Your task to perform on an android device: turn off improve location accuracy Image 0: 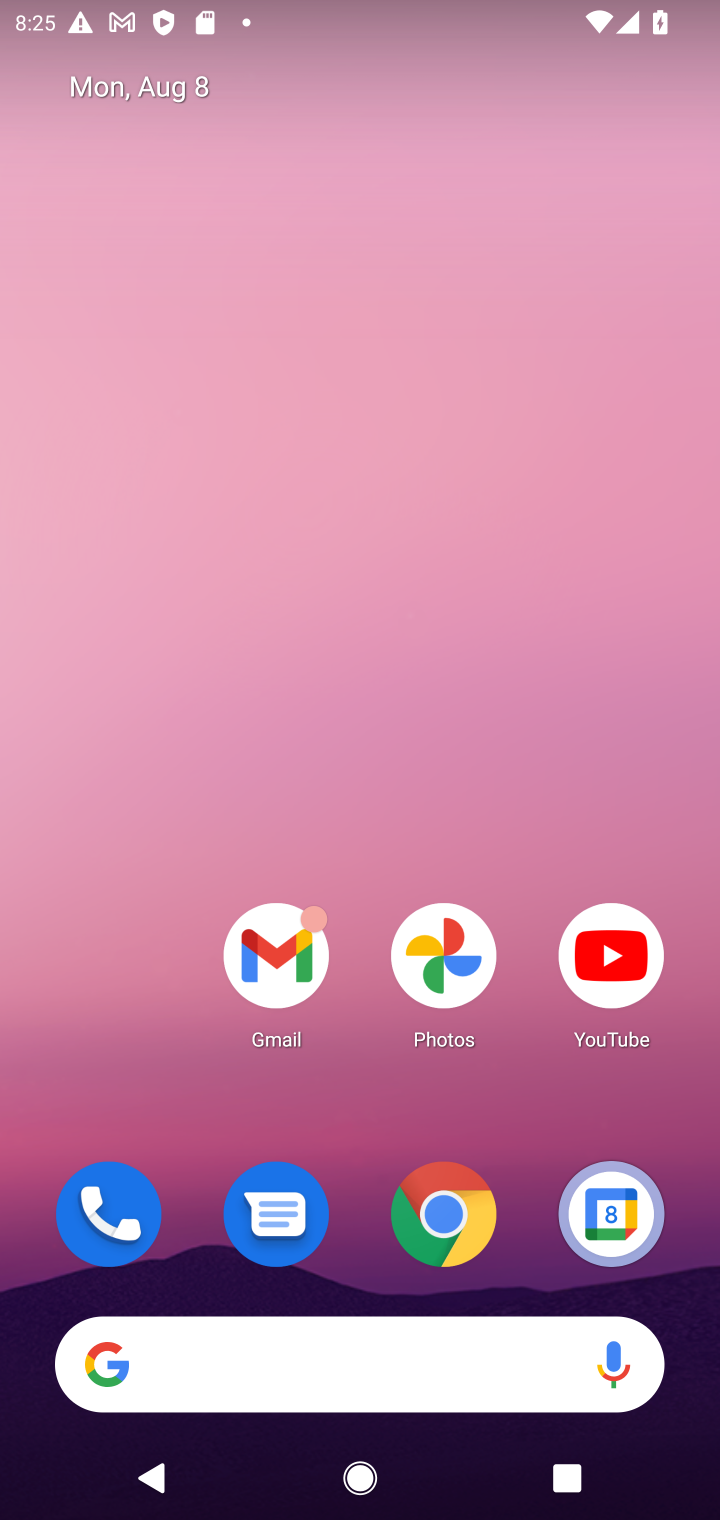
Step 0: drag from (311, 1096) to (205, 363)
Your task to perform on an android device: turn off improve location accuracy Image 1: 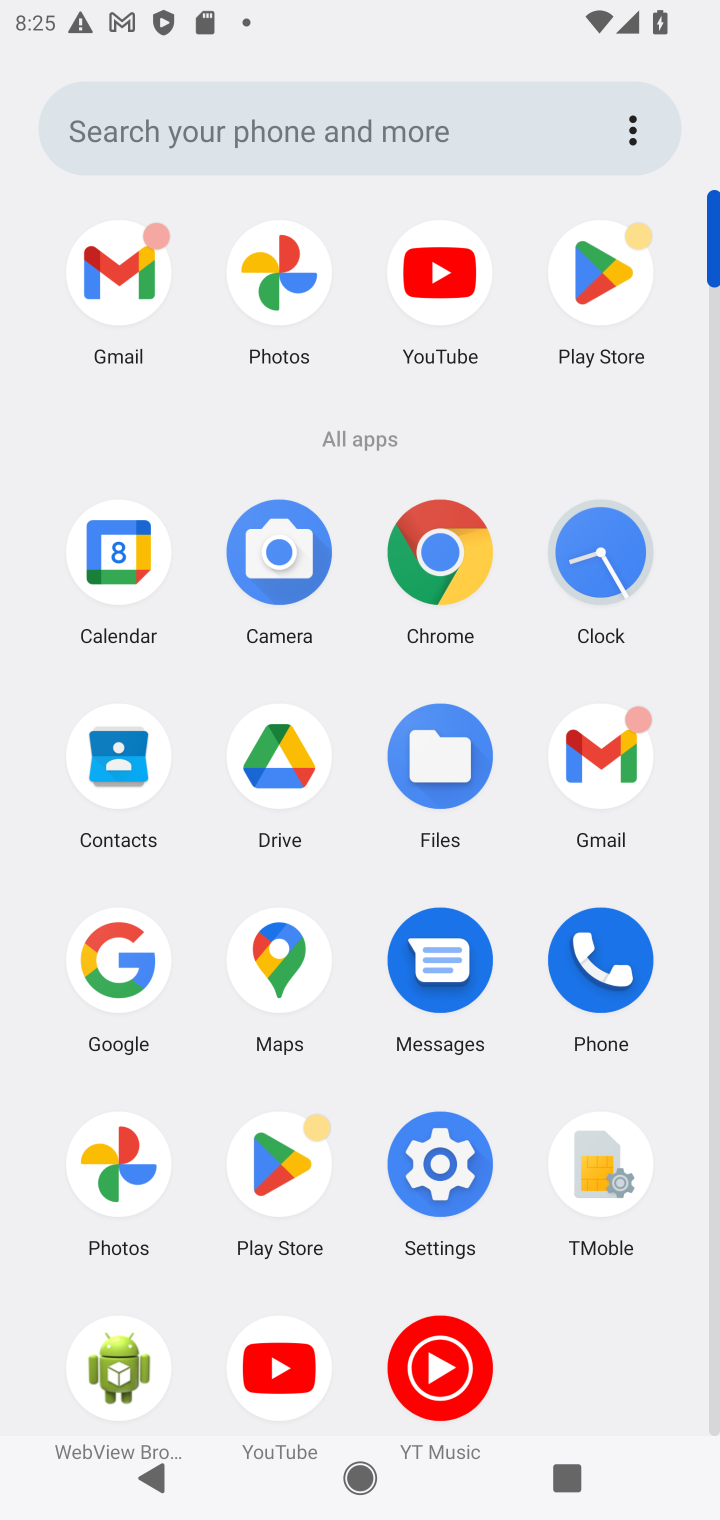
Step 1: click (431, 1194)
Your task to perform on an android device: turn off improve location accuracy Image 2: 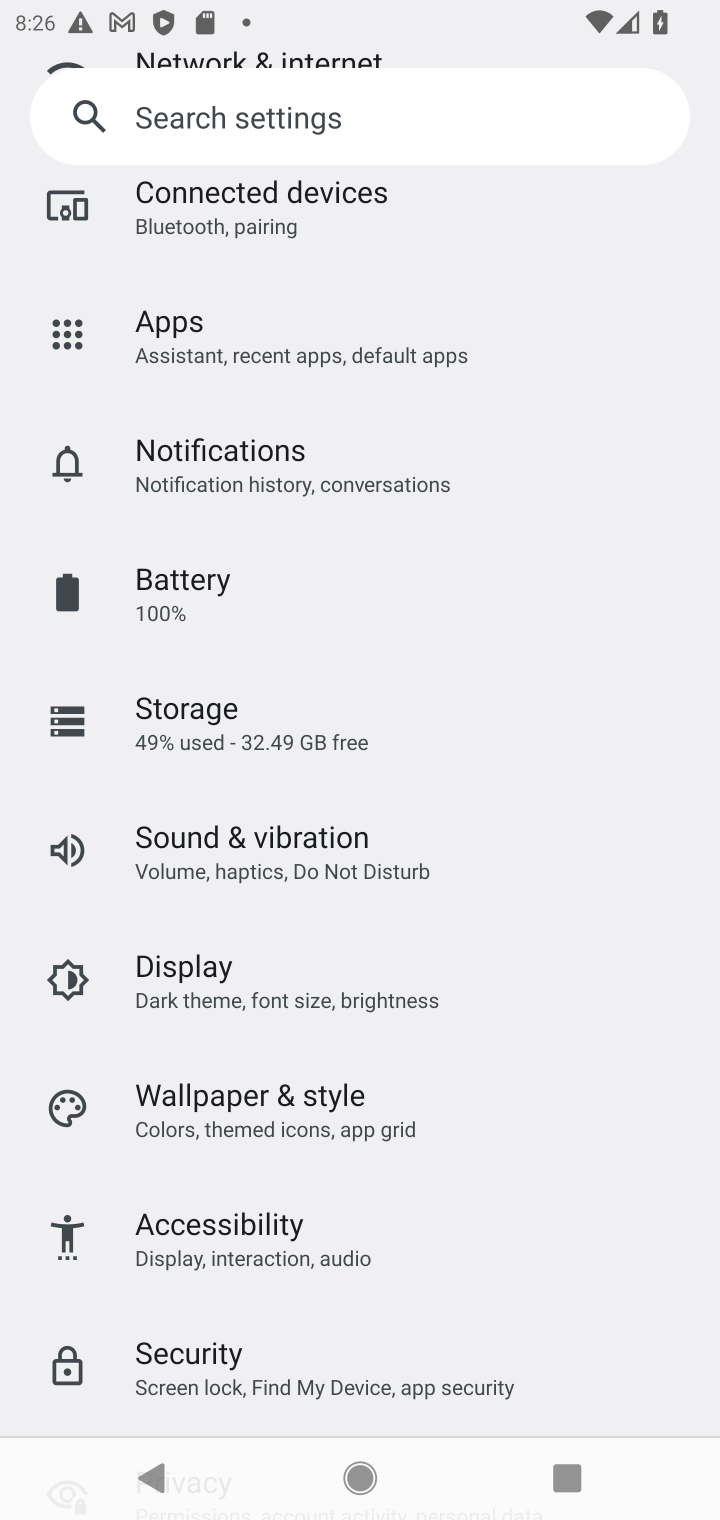
Step 2: drag from (526, 808) to (397, 311)
Your task to perform on an android device: turn off improve location accuracy Image 3: 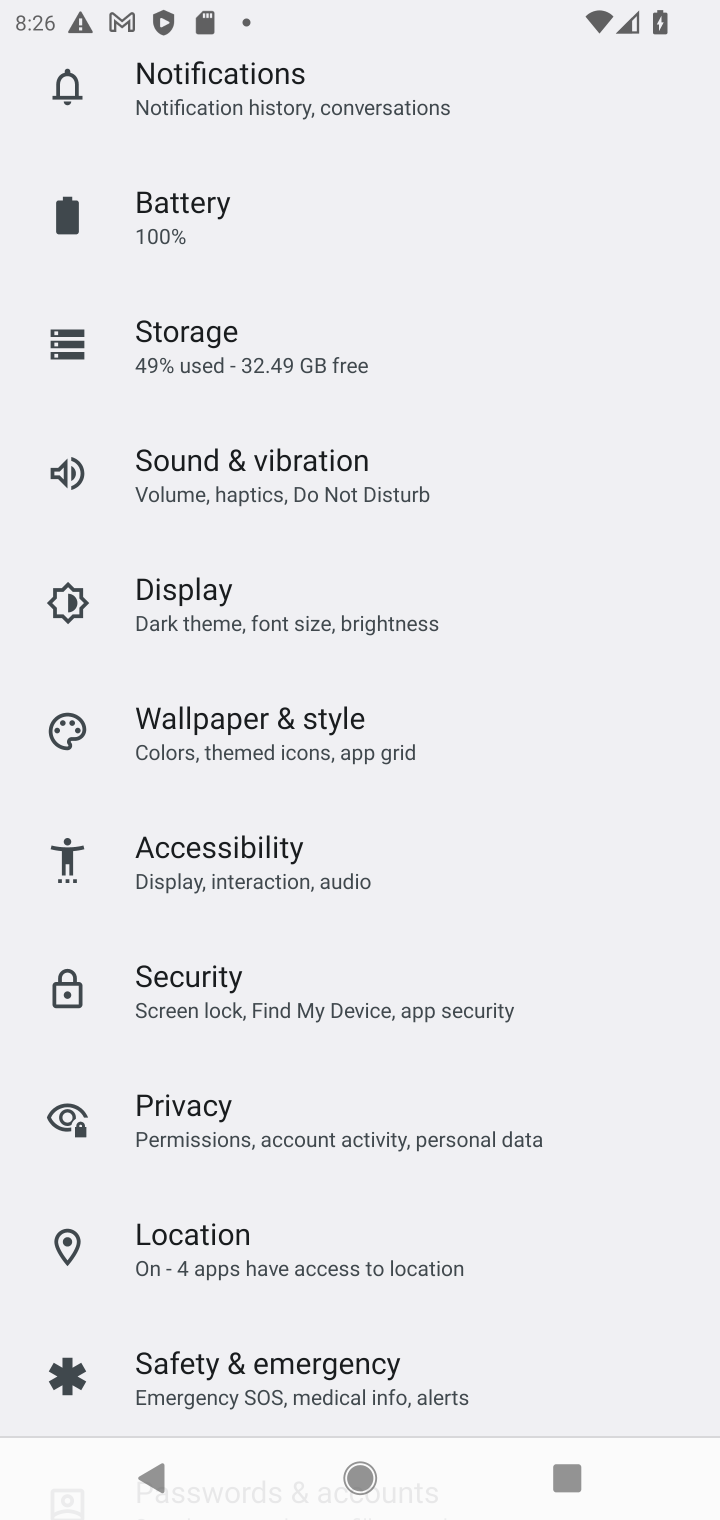
Step 3: click (353, 1251)
Your task to perform on an android device: turn off improve location accuracy Image 4: 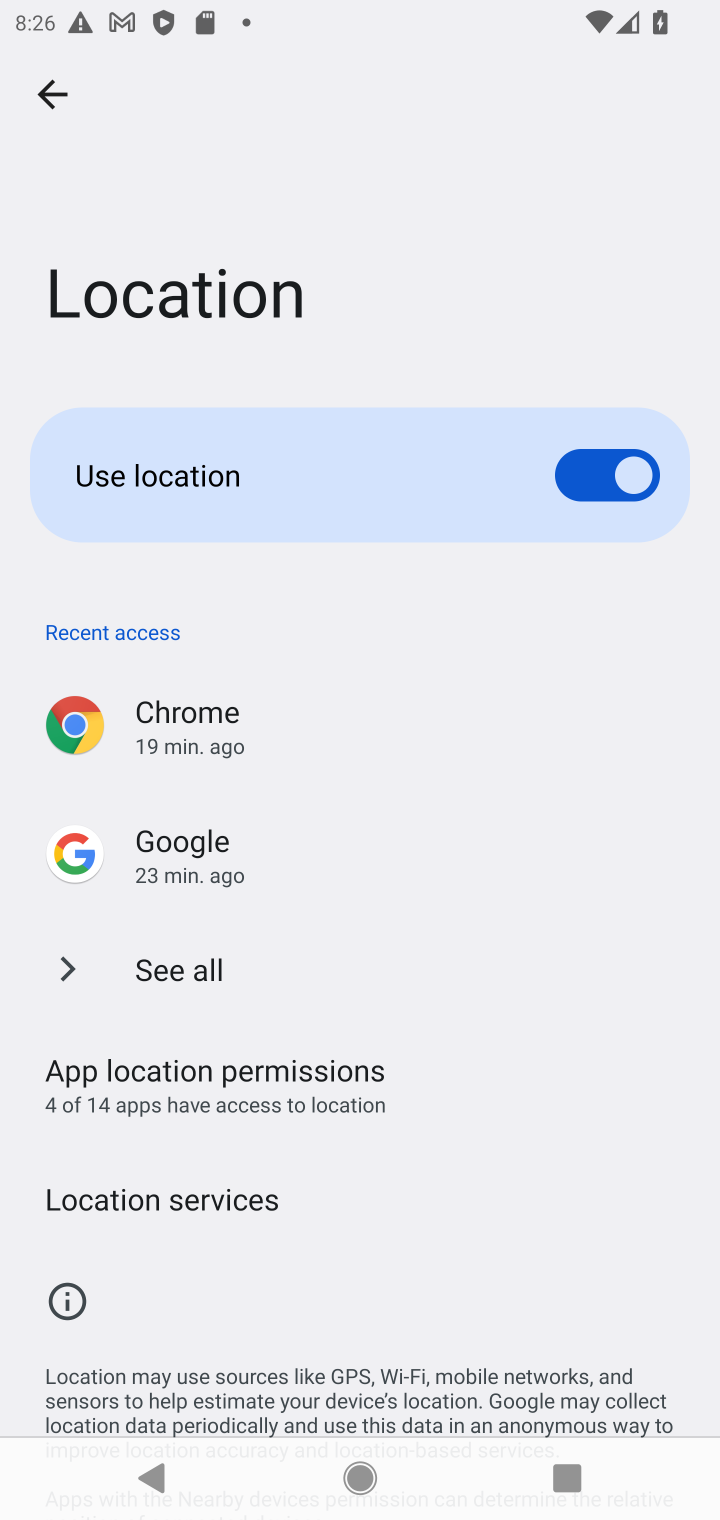
Step 4: click (227, 1188)
Your task to perform on an android device: turn off improve location accuracy Image 5: 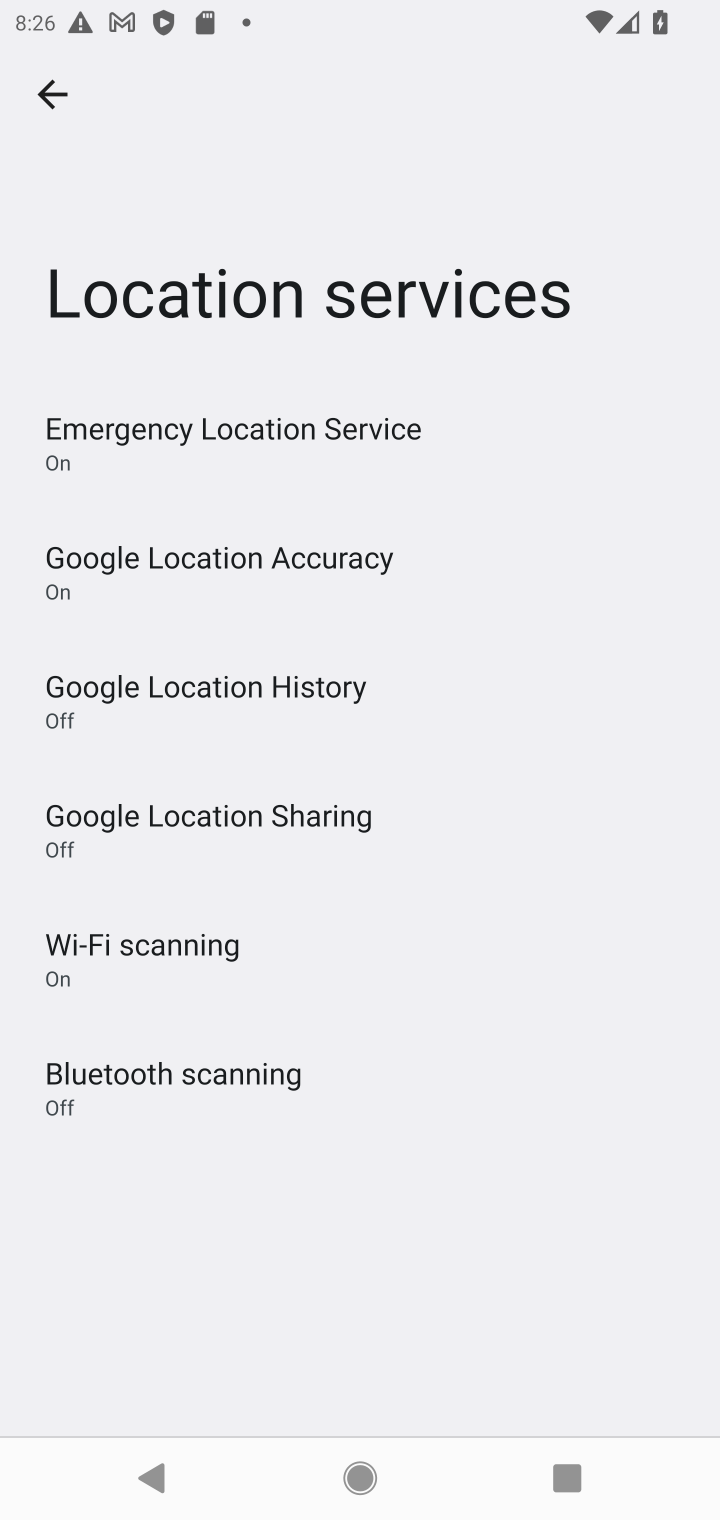
Step 5: click (117, 581)
Your task to perform on an android device: turn off improve location accuracy Image 6: 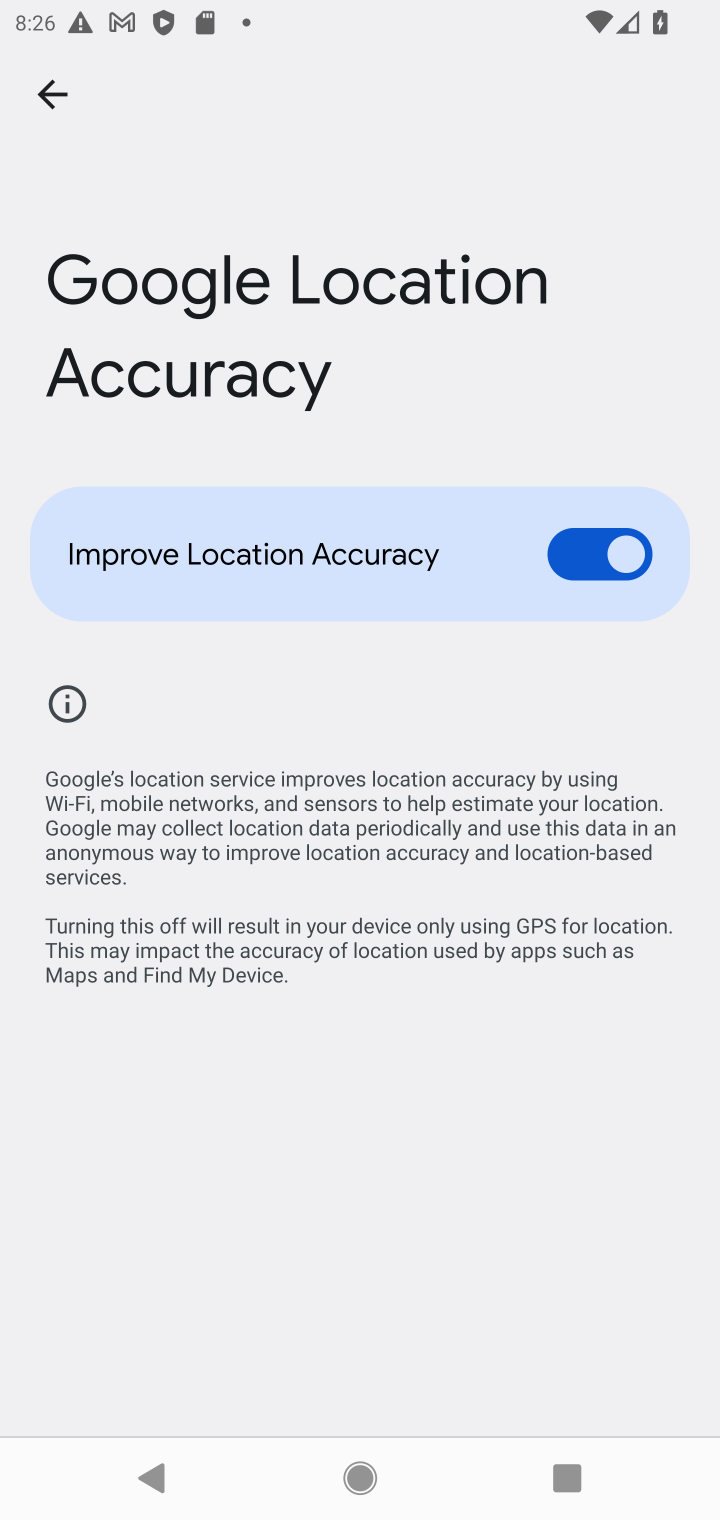
Step 6: click (580, 555)
Your task to perform on an android device: turn off improve location accuracy Image 7: 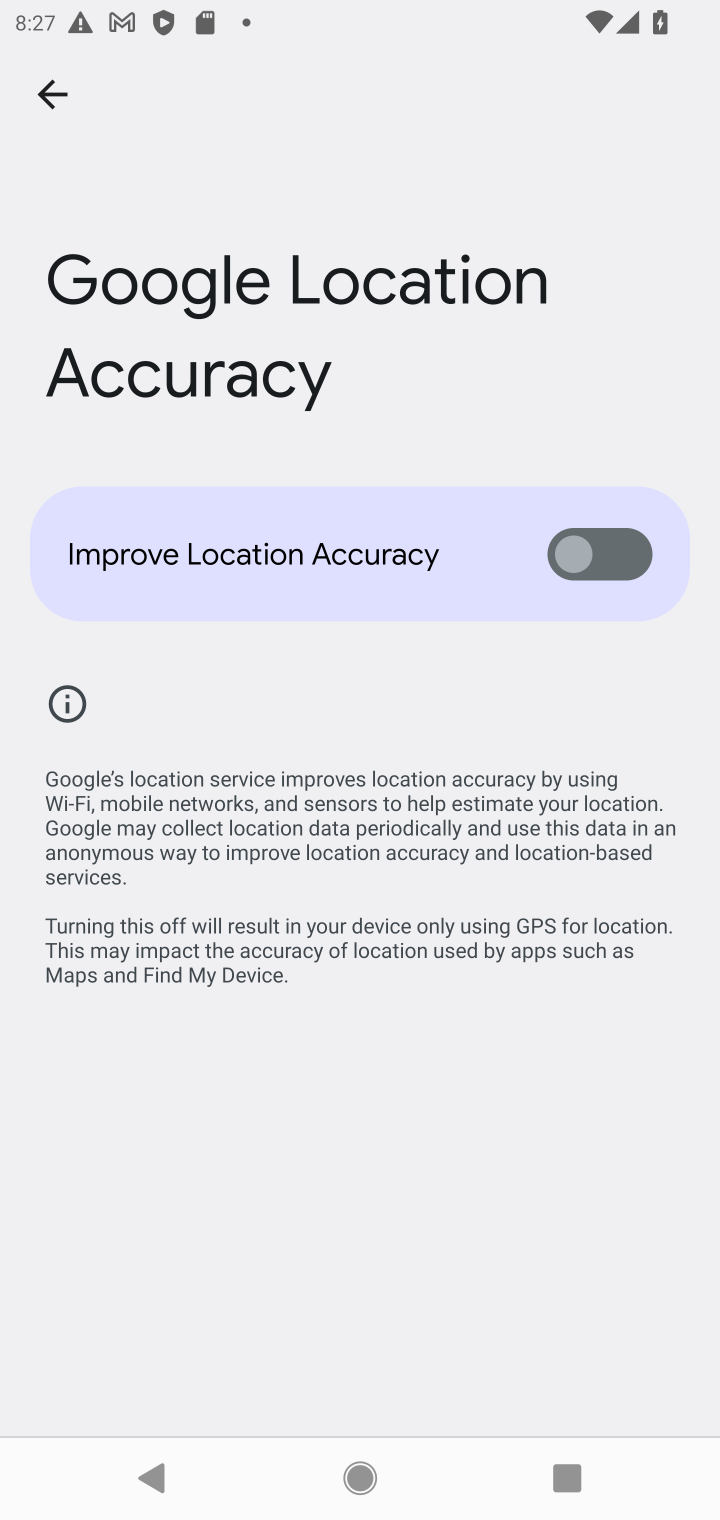
Step 7: task complete